Your task to perform on an android device: star an email in the gmail app Image 0: 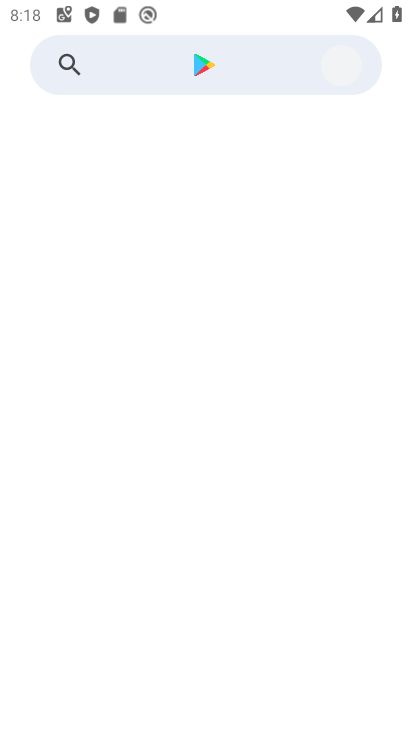
Step 0: press home button
Your task to perform on an android device: star an email in the gmail app Image 1: 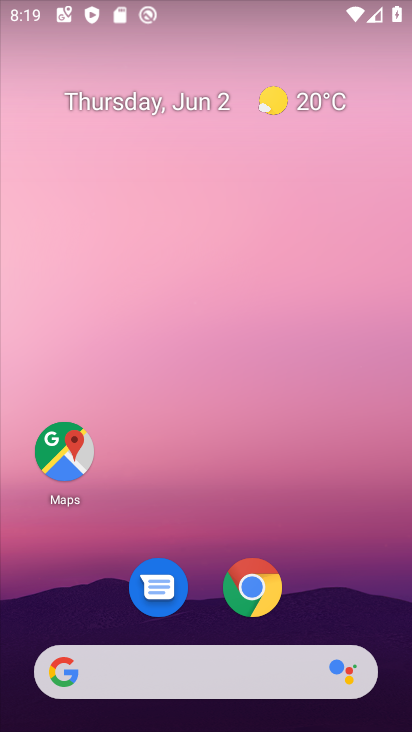
Step 1: drag from (182, 625) to (227, 84)
Your task to perform on an android device: star an email in the gmail app Image 2: 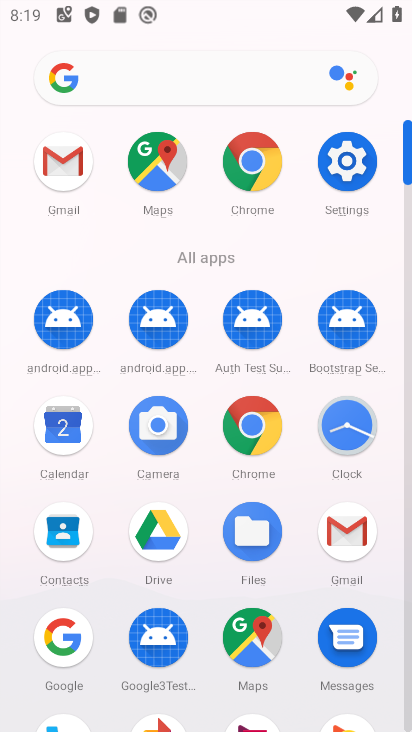
Step 2: click (81, 166)
Your task to perform on an android device: star an email in the gmail app Image 3: 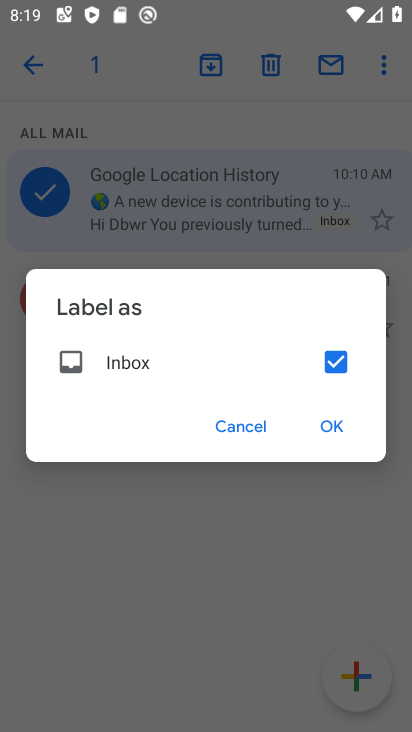
Step 3: click (268, 423)
Your task to perform on an android device: star an email in the gmail app Image 4: 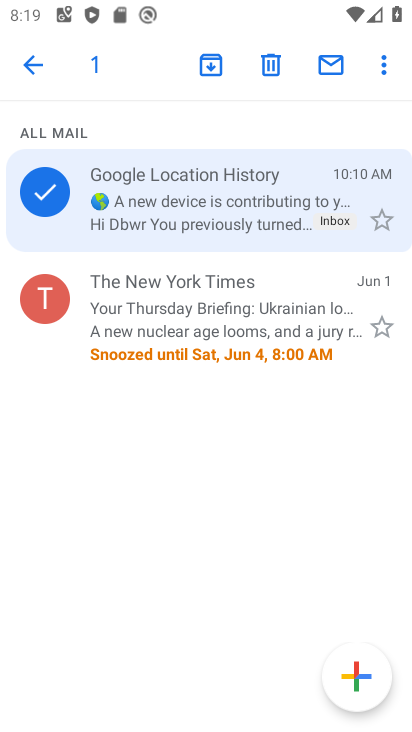
Step 4: click (381, 321)
Your task to perform on an android device: star an email in the gmail app Image 5: 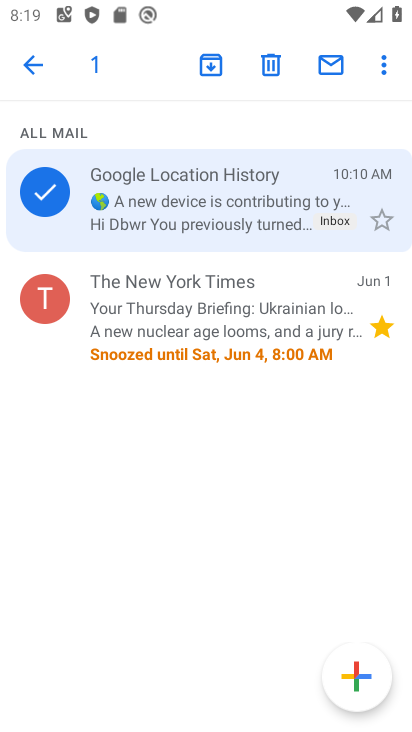
Step 5: task complete